Your task to perform on an android device: Open Yahoo.com Image 0: 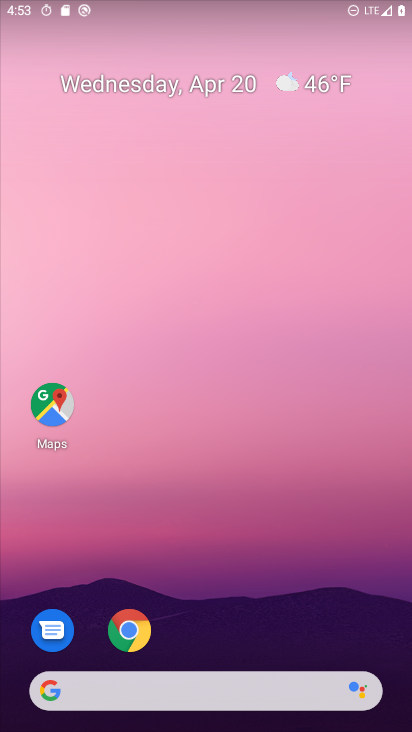
Step 0: drag from (231, 476) to (204, 175)
Your task to perform on an android device: Open Yahoo.com Image 1: 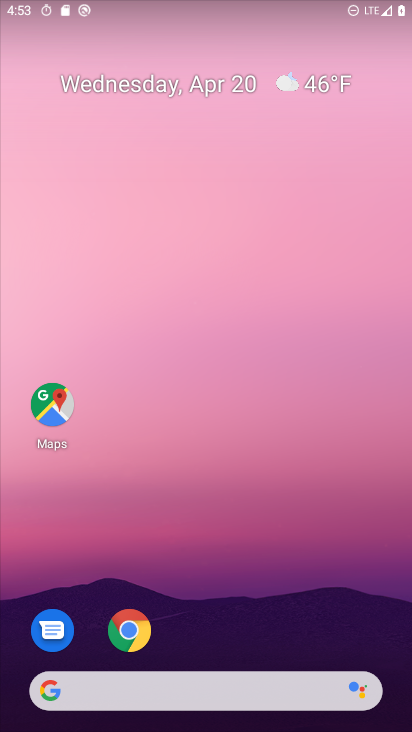
Step 1: drag from (294, 617) to (245, 155)
Your task to perform on an android device: Open Yahoo.com Image 2: 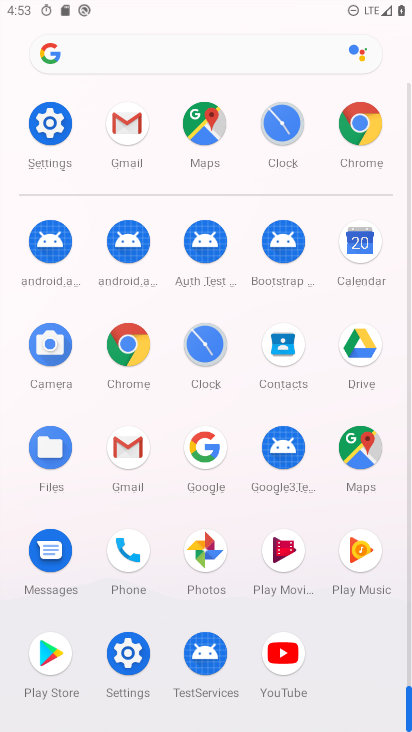
Step 2: click (123, 324)
Your task to perform on an android device: Open Yahoo.com Image 3: 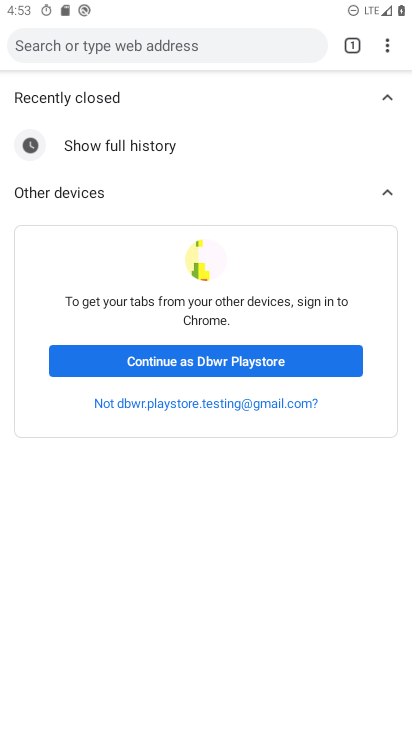
Step 3: click (246, 40)
Your task to perform on an android device: Open Yahoo.com Image 4: 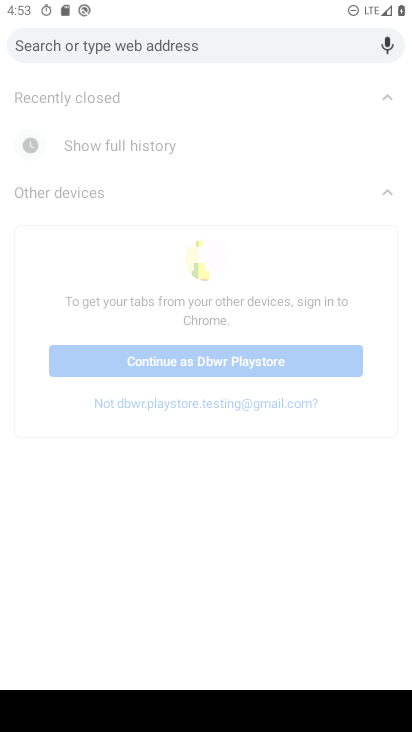
Step 4: click (114, 41)
Your task to perform on an android device: Open Yahoo.com Image 5: 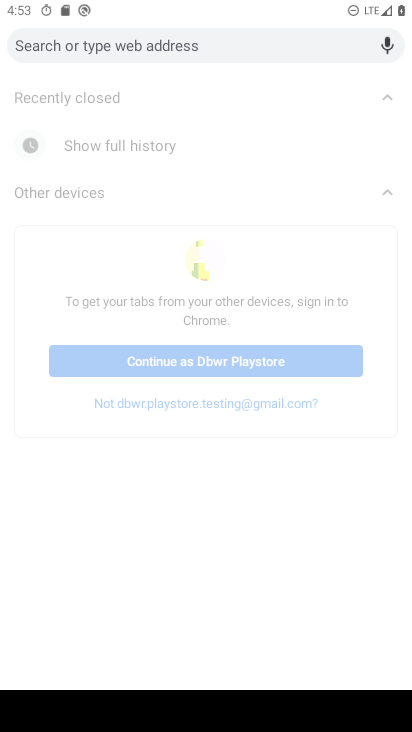
Step 5: type "yahoo.com"
Your task to perform on an android device: Open Yahoo.com Image 6: 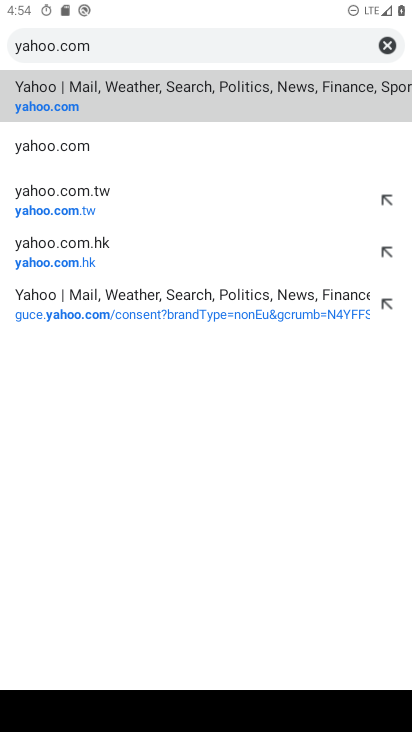
Step 6: click (141, 95)
Your task to perform on an android device: Open Yahoo.com Image 7: 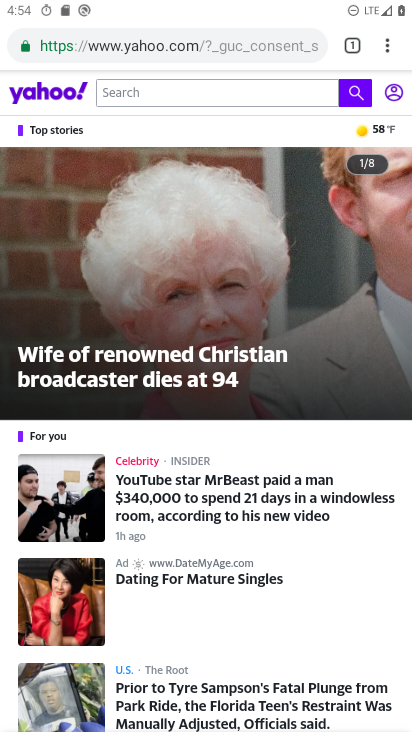
Step 7: task complete